Your task to perform on an android device: Open Wikipedia Image 0: 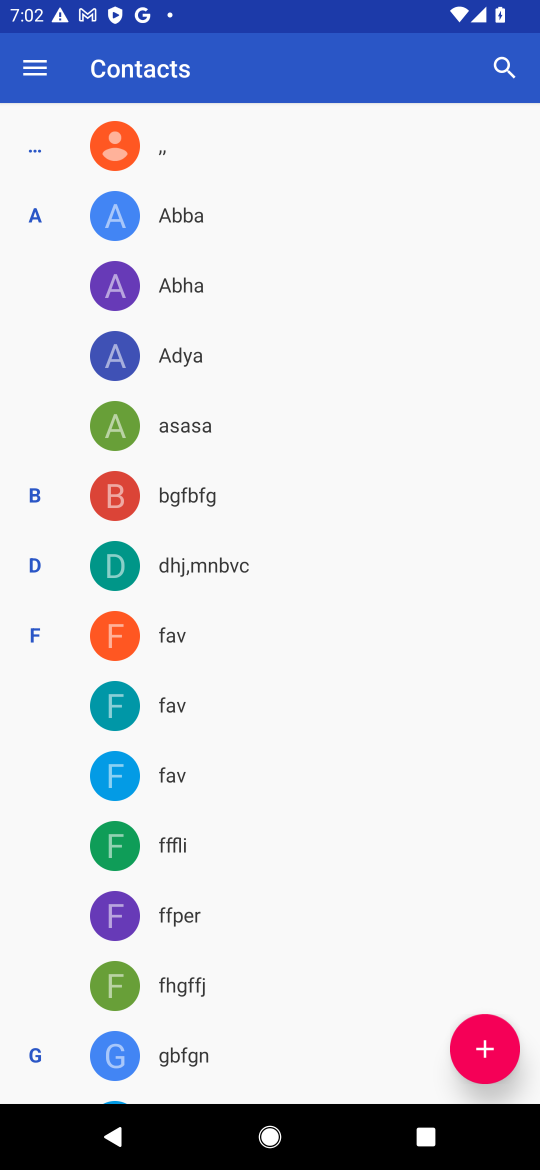
Step 0: press home button
Your task to perform on an android device: Open Wikipedia Image 1: 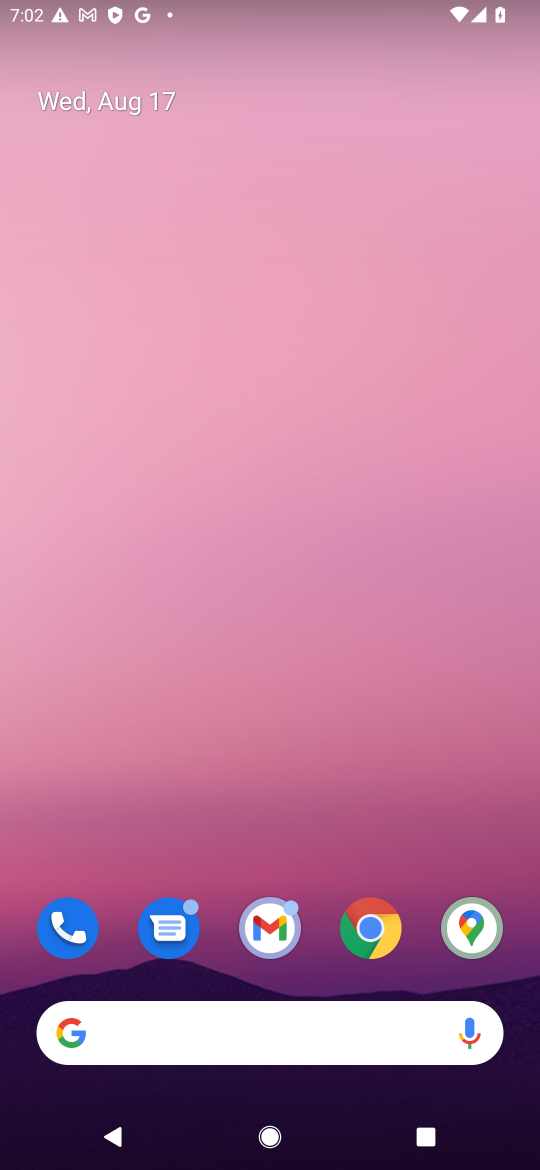
Step 1: click (363, 932)
Your task to perform on an android device: Open Wikipedia Image 2: 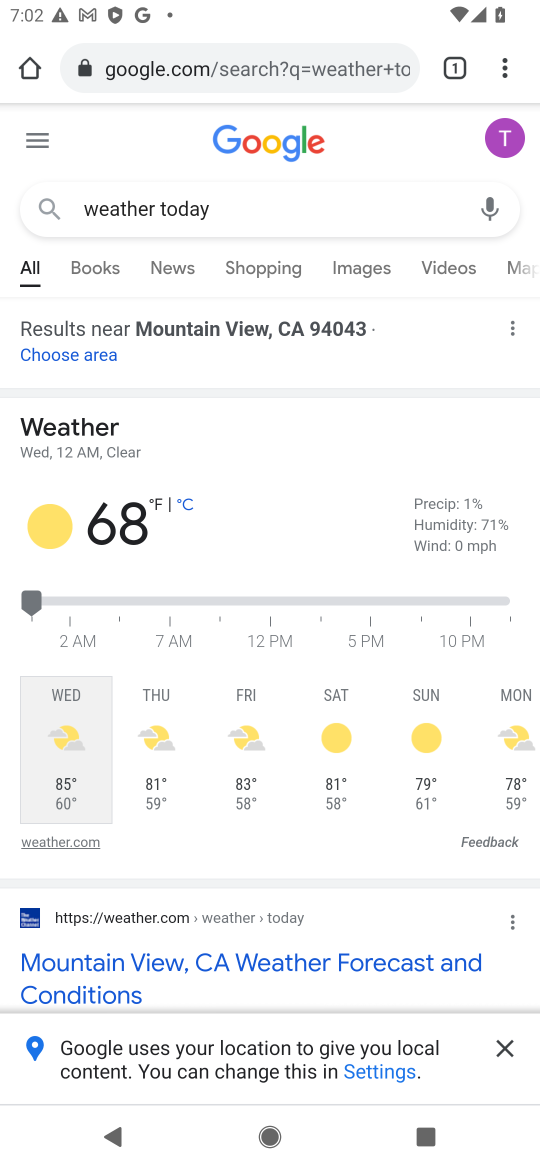
Step 2: click (180, 74)
Your task to perform on an android device: Open Wikipedia Image 3: 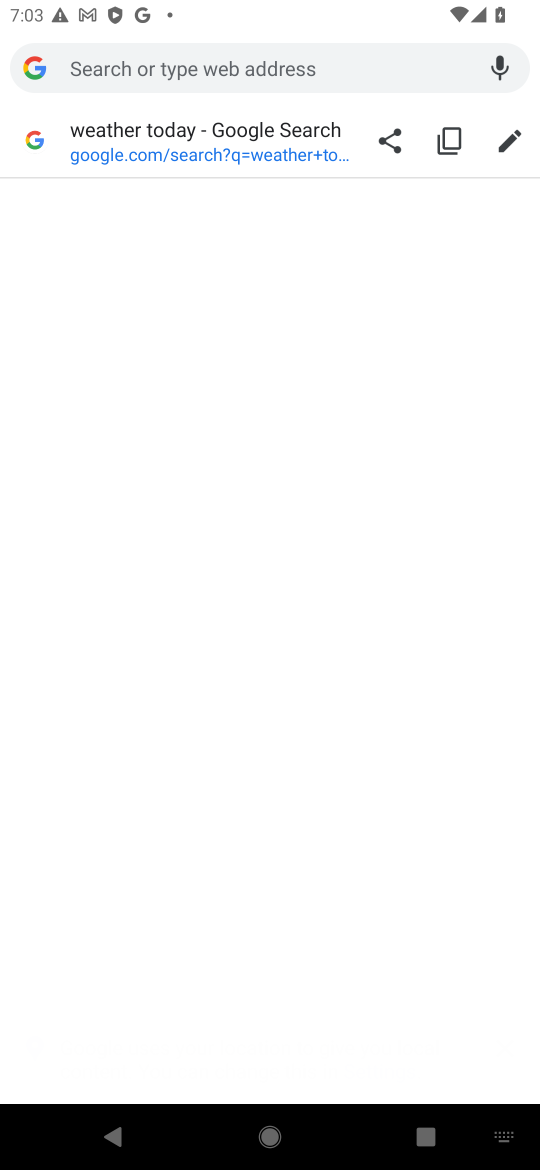
Step 3: type "wikipedia"
Your task to perform on an android device: Open Wikipedia Image 4: 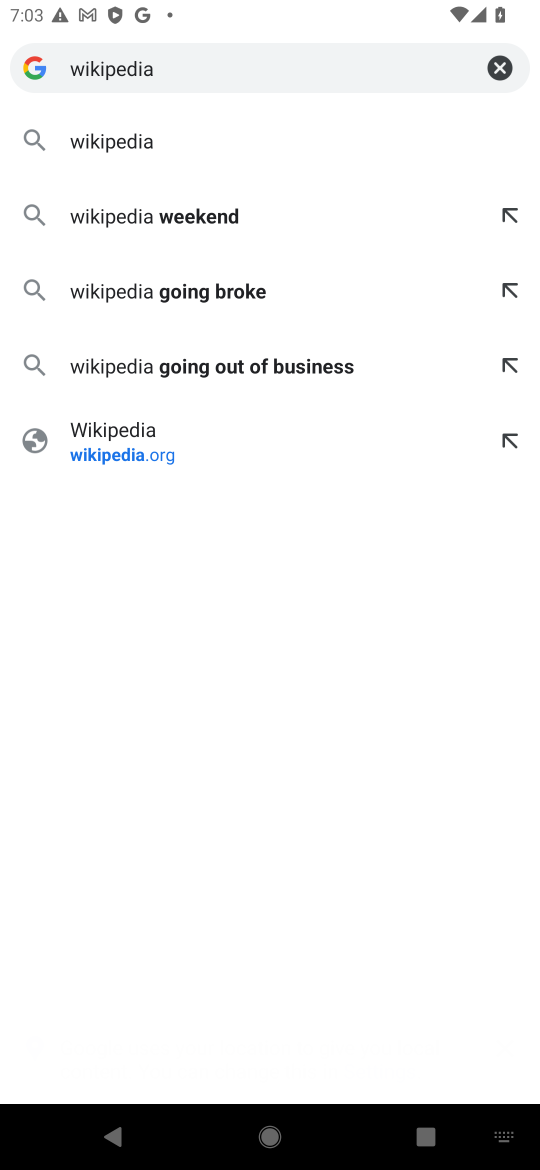
Step 4: click (194, 140)
Your task to perform on an android device: Open Wikipedia Image 5: 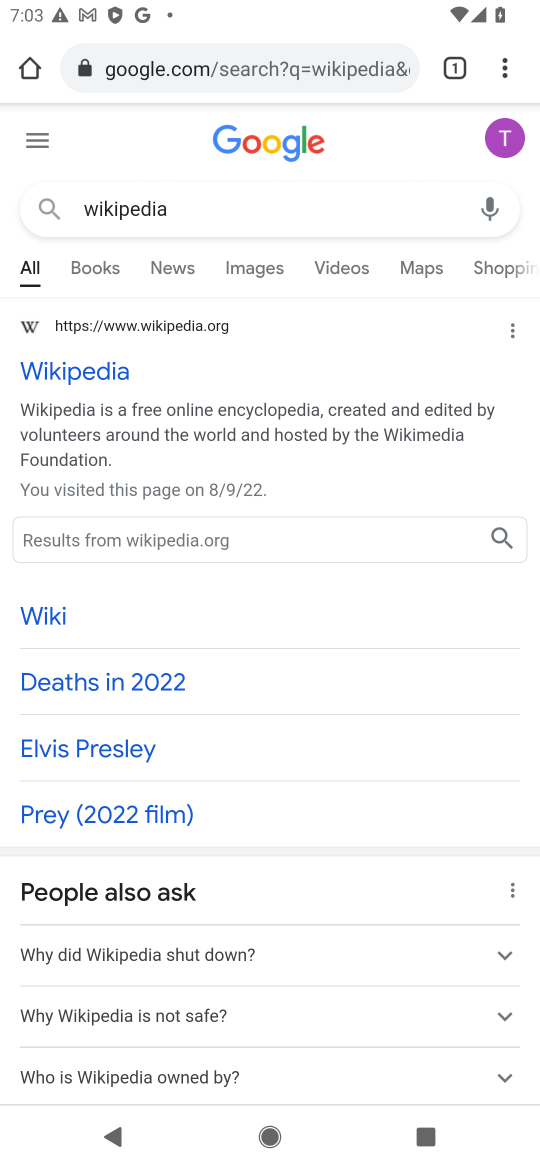
Step 5: drag from (178, 152) to (463, 572)
Your task to perform on an android device: Open Wikipedia Image 6: 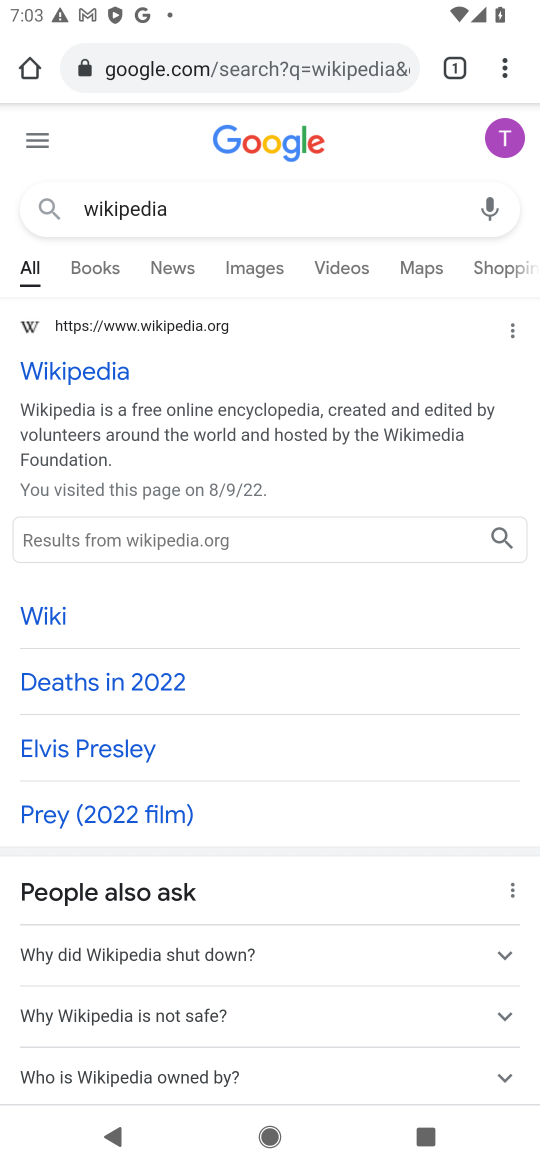
Step 6: click (72, 374)
Your task to perform on an android device: Open Wikipedia Image 7: 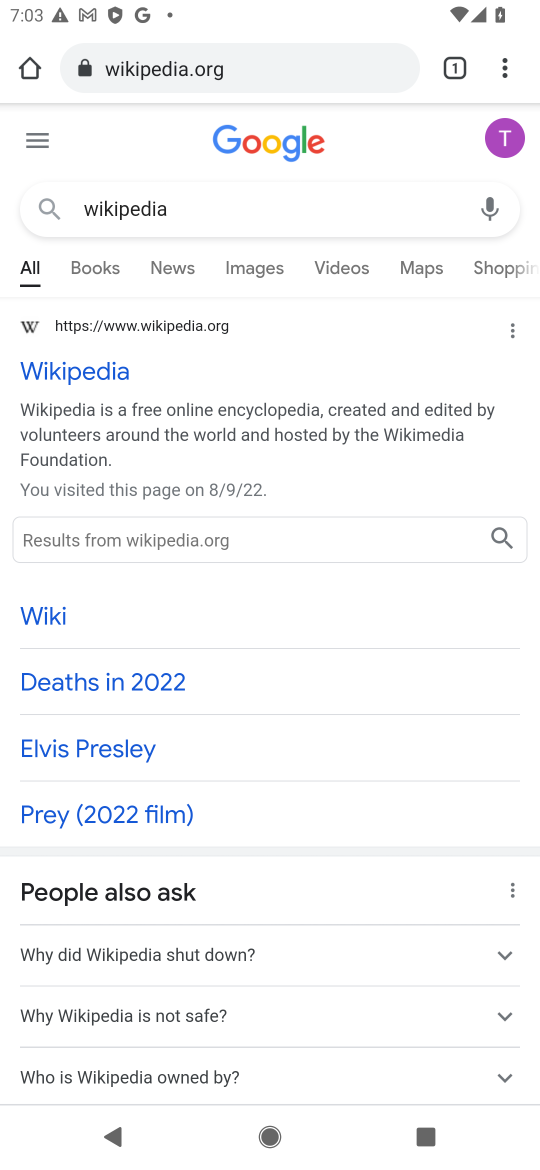
Step 7: task complete